Your task to perform on an android device: turn on sleep mode Image 0: 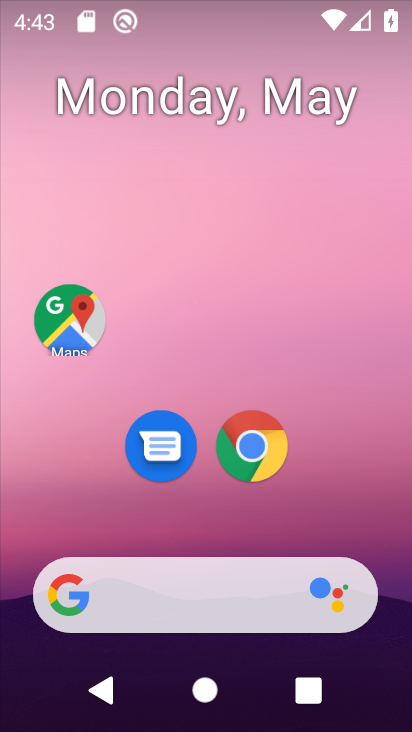
Step 0: drag from (272, 200) to (234, 15)
Your task to perform on an android device: turn on sleep mode Image 1: 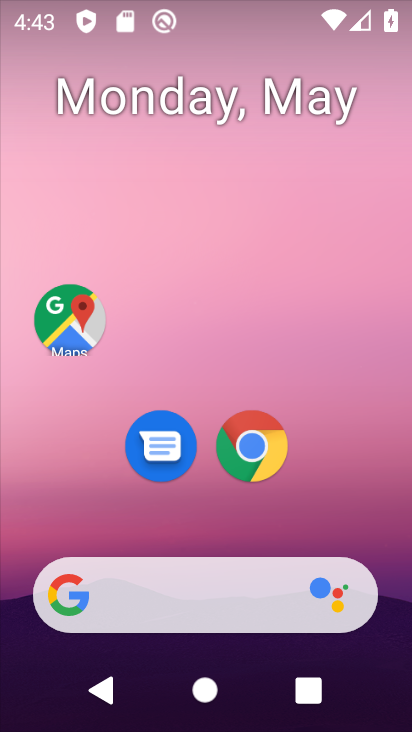
Step 1: drag from (214, 512) to (173, 63)
Your task to perform on an android device: turn on sleep mode Image 2: 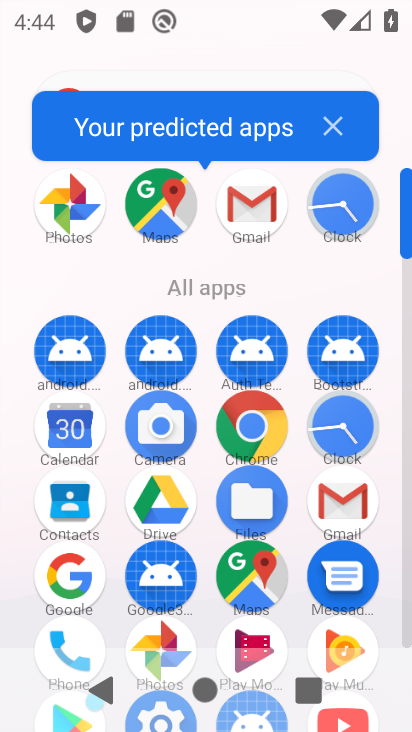
Step 2: drag from (191, 608) to (116, 250)
Your task to perform on an android device: turn on sleep mode Image 3: 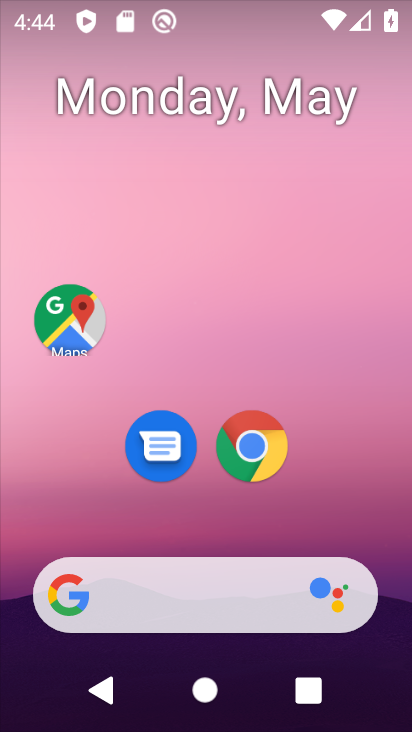
Step 3: drag from (326, 504) to (275, 23)
Your task to perform on an android device: turn on sleep mode Image 4: 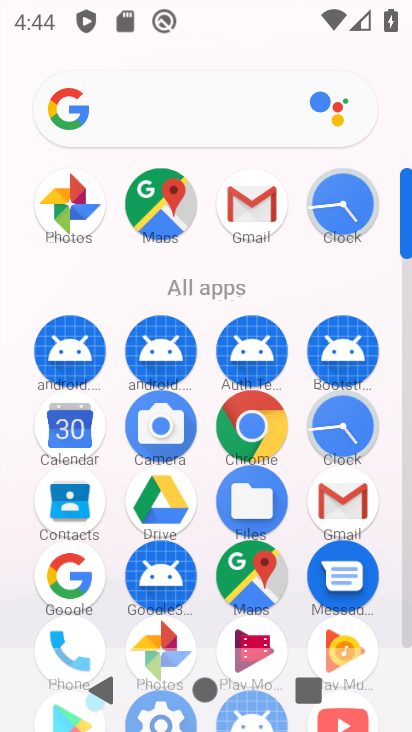
Step 4: drag from (213, 536) to (187, 234)
Your task to perform on an android device: turn on sleep mode Image 5: 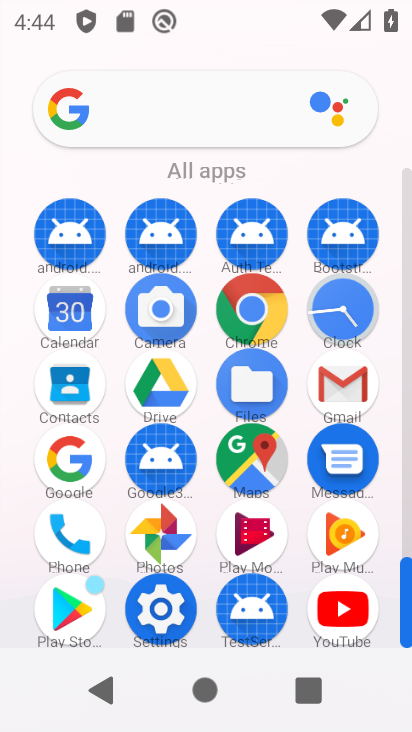
Step 5: click (171, 612)
Your task to perform on an android device: turn on sleep mode Image 6: 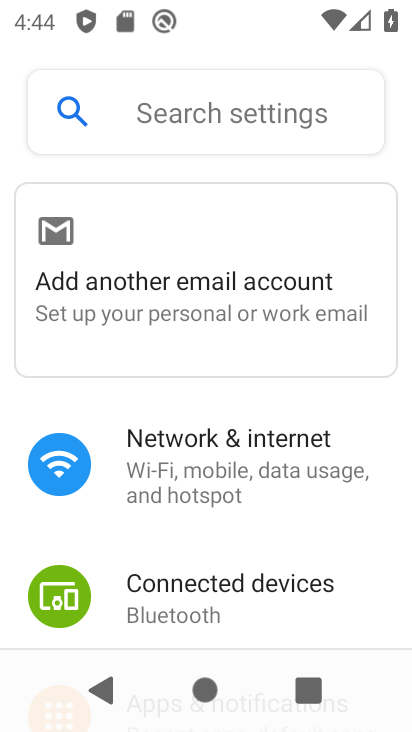
Step 6: drag from (238, 552) to (204, 288)
Your task to perform on an android device: turn on sleep mode Image 7: 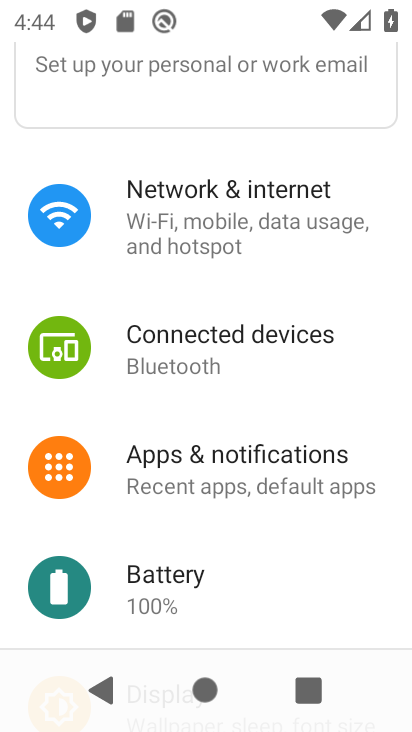
Step 7: click (186, 473)
Your task to perform on an android device: turn on sleep mode Image 8: 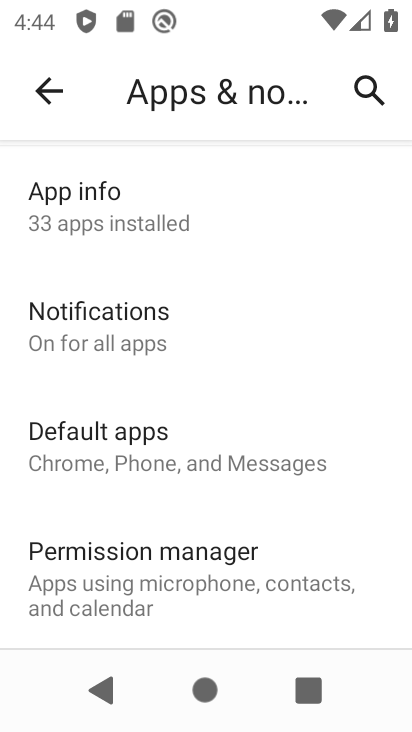
Step 8: task complete